Your task to perform on an android device: Go to Amazon Image 0: 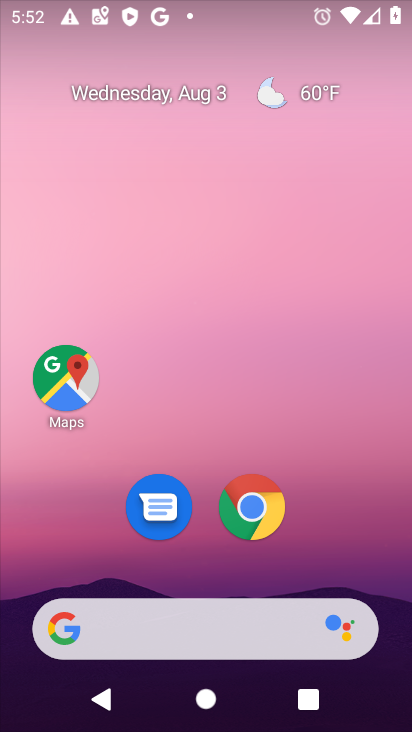
Step 0: drag from (324, 446) to (325, 51)
Your task to perform on an android device: Go to Amazon Image 1: 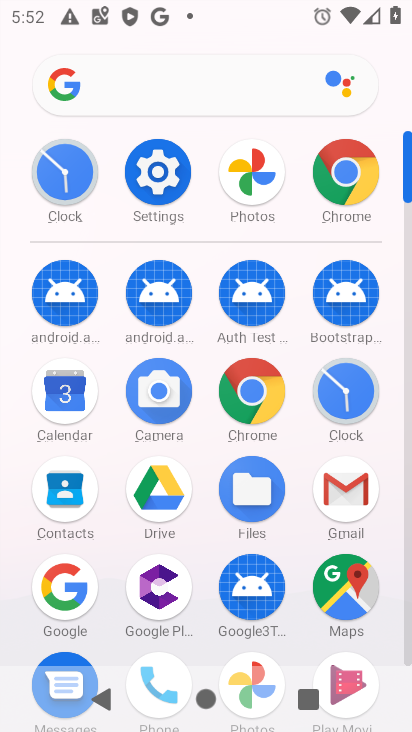
Step 1: click (340, 171)
Your task to perform on an android device: Go to Amazon Image 2: 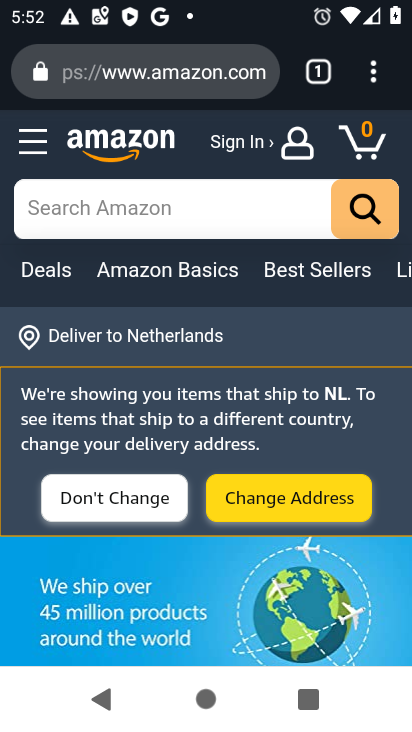
Step 2: task complete